Your task to perform on an android device: Install the eBay app Image 0: 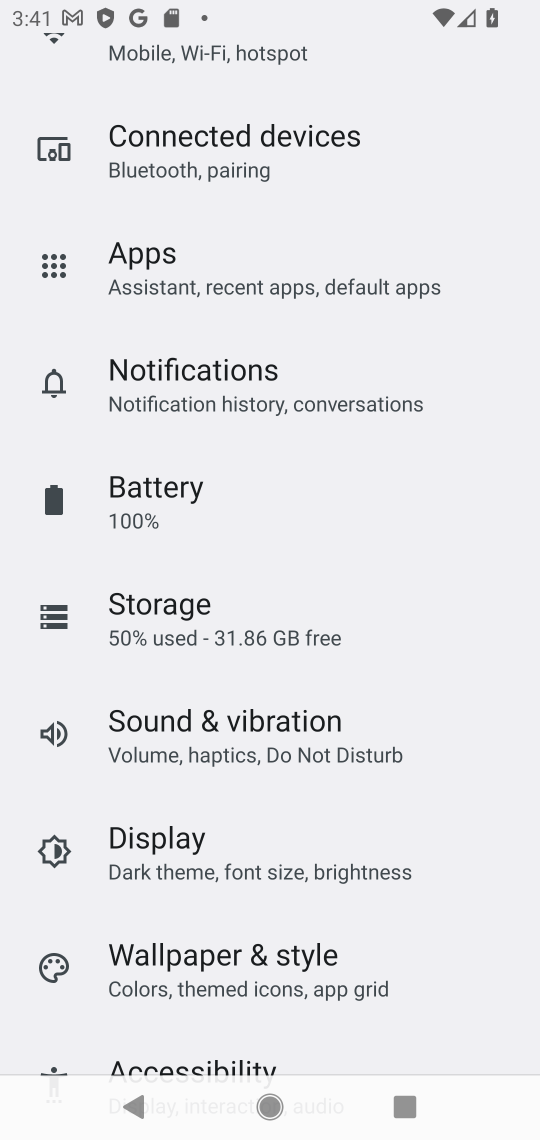
Step 0: press home button
Your task to perform on an android device: Install the eBay app Image 1: 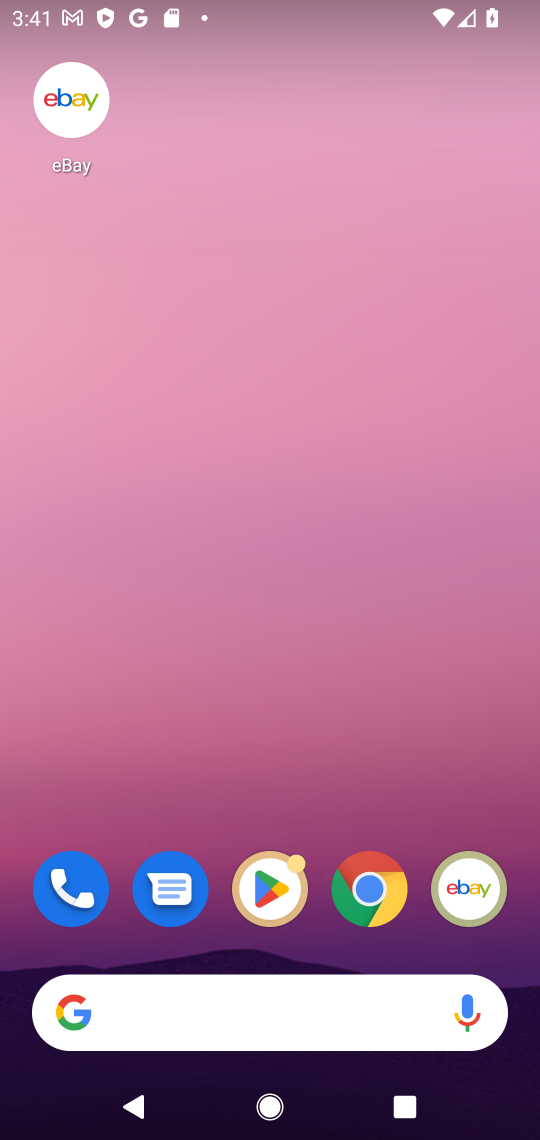
Step 1: drag from (237, 852) to (204, 262)
Your task to perform on an android device: Install the eBay app Image 2: 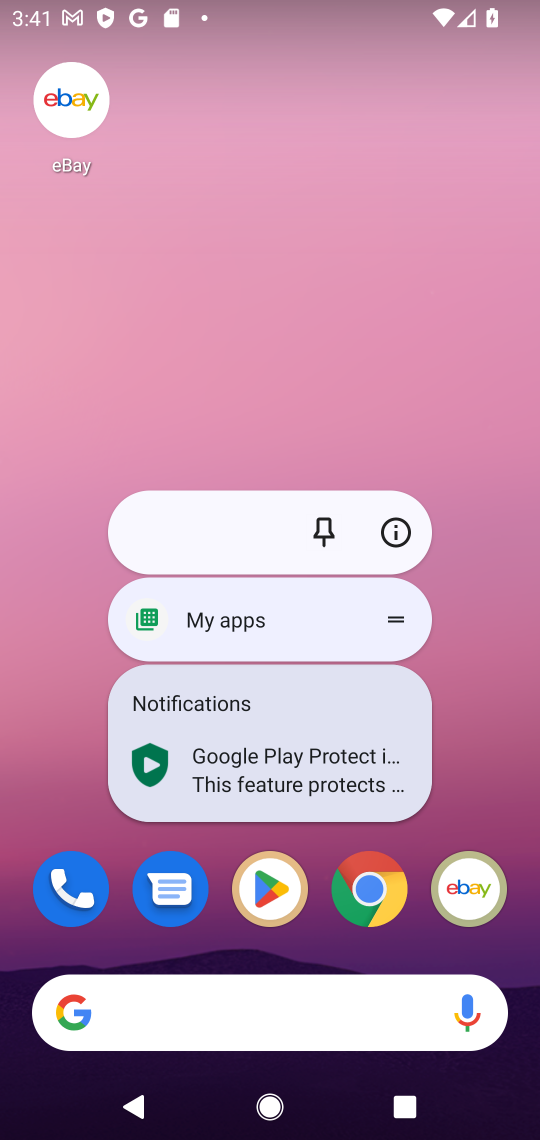
Step 2: click (315, 336)
Your task to perform on an android device: Install the eBay app Image 3: 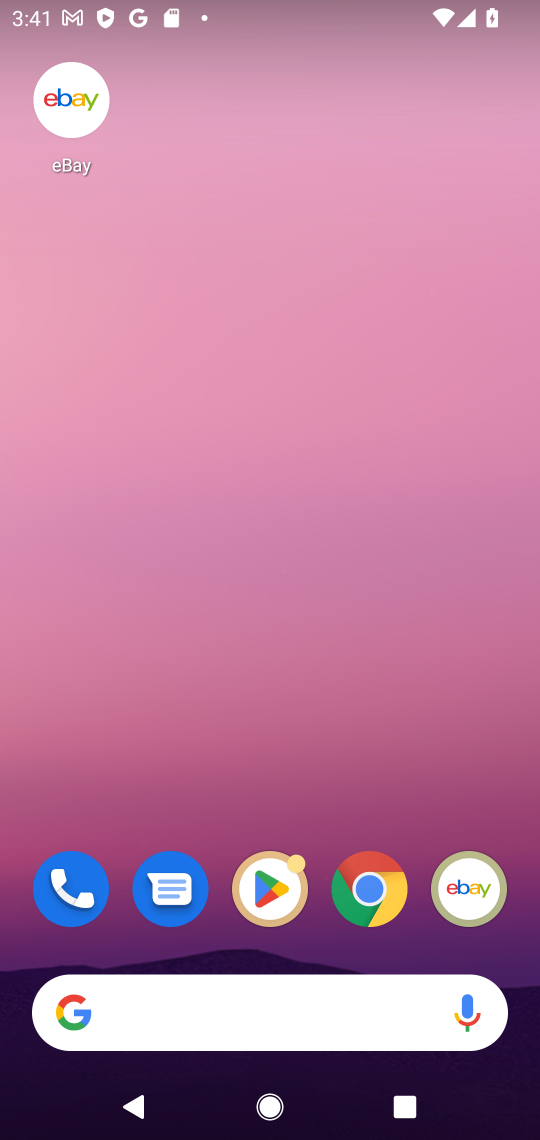
Step 3: drag from (203, 928) to (233, 310)
Your task to perform on an android device: Install the eBay app Image 4: 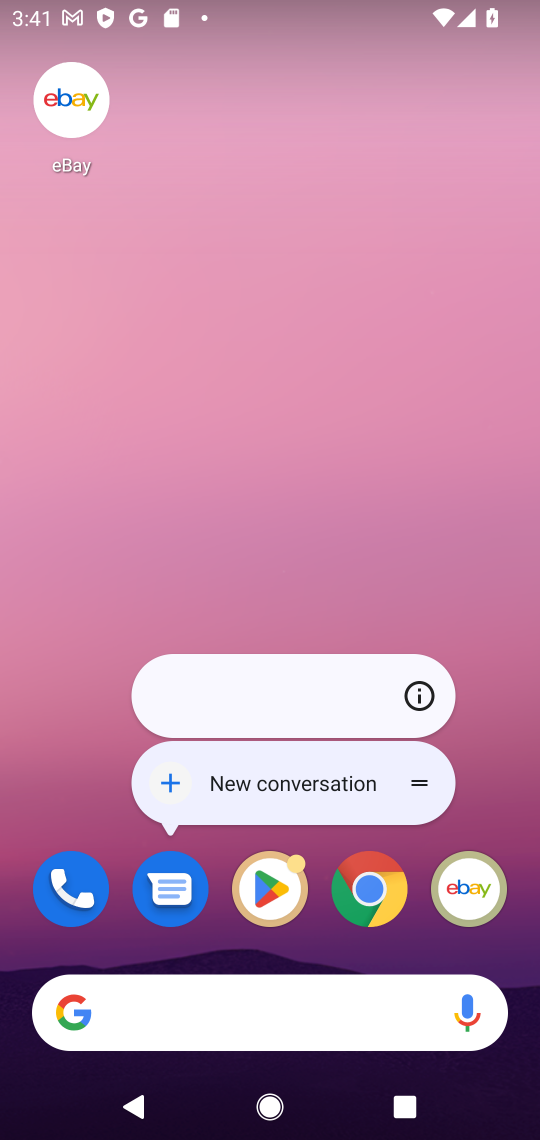
Step 4: click (329, 532)
Your task to perform on an android device: Install the eBay app Image 5: 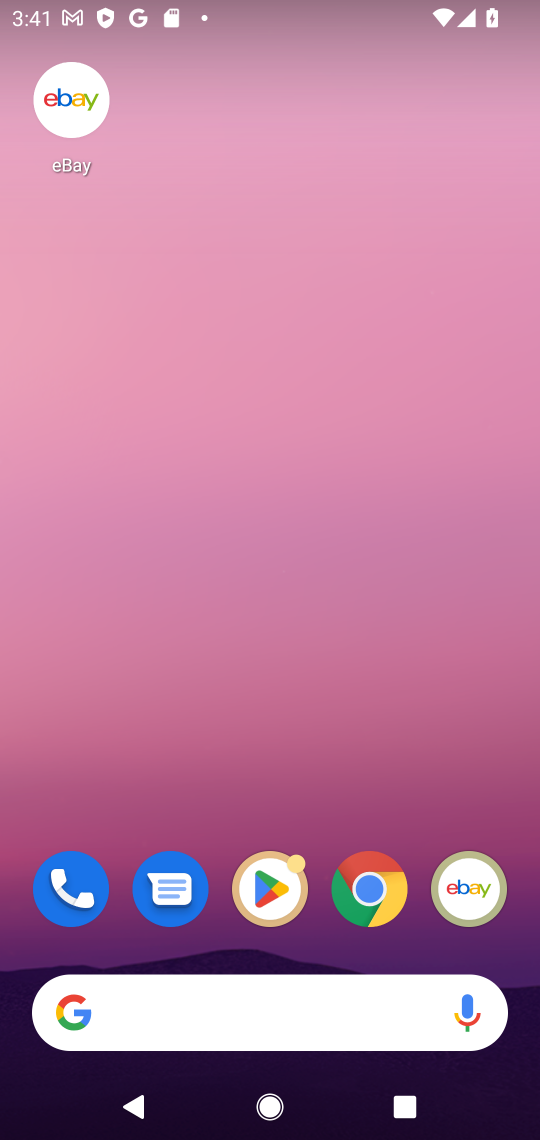
Step 5: drag from (272, 1002) to (247, 240)
Your task to perform on an android device: Install the eBay app Image 6: 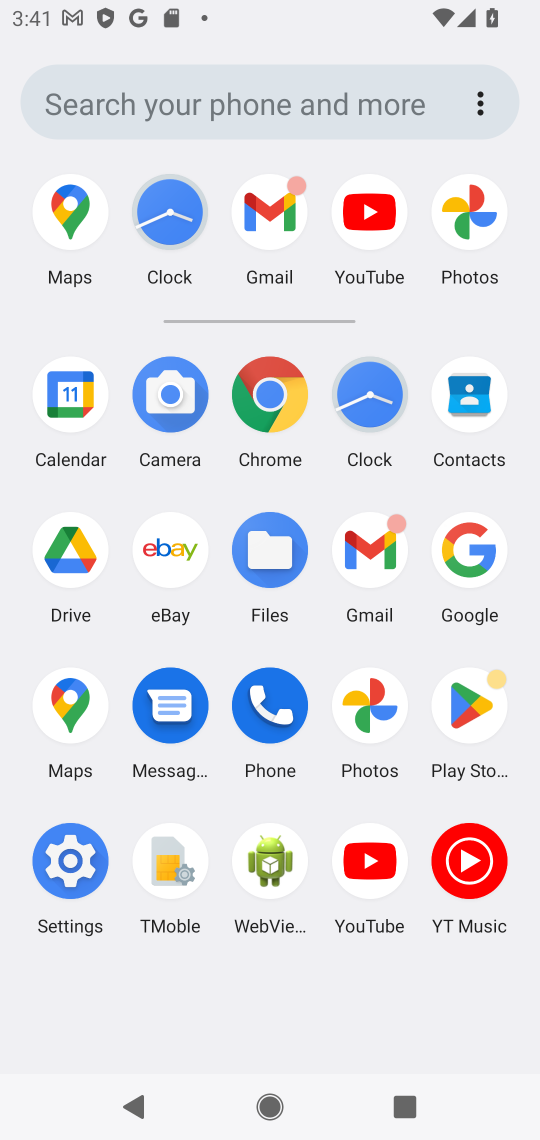
Step 6: click (456, 547)
Your task to perform on an android device: Install the eBay app Image 7: 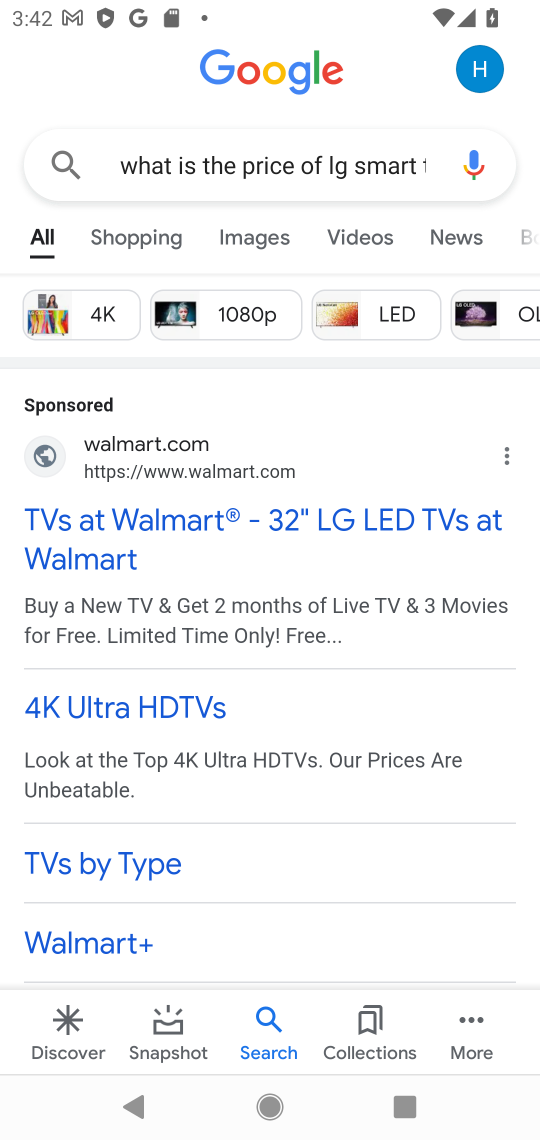
Step 7: click (307, 159)
Your task to perform on an android device: Install the eBay app Image 8: 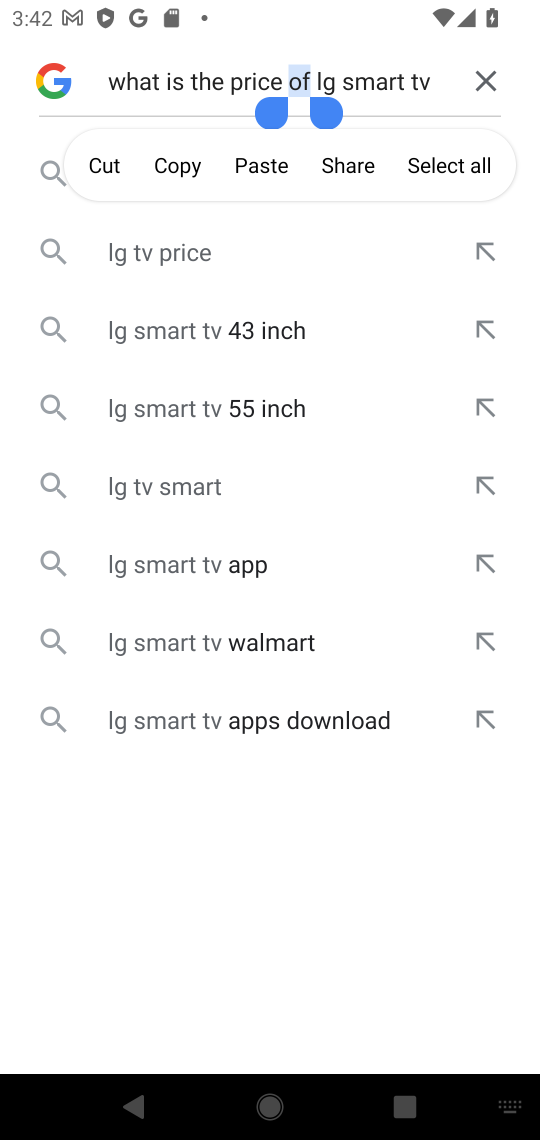
Step 8: click (473, 86)
Your task to perform on an android device: Install the eBay app Image 9: 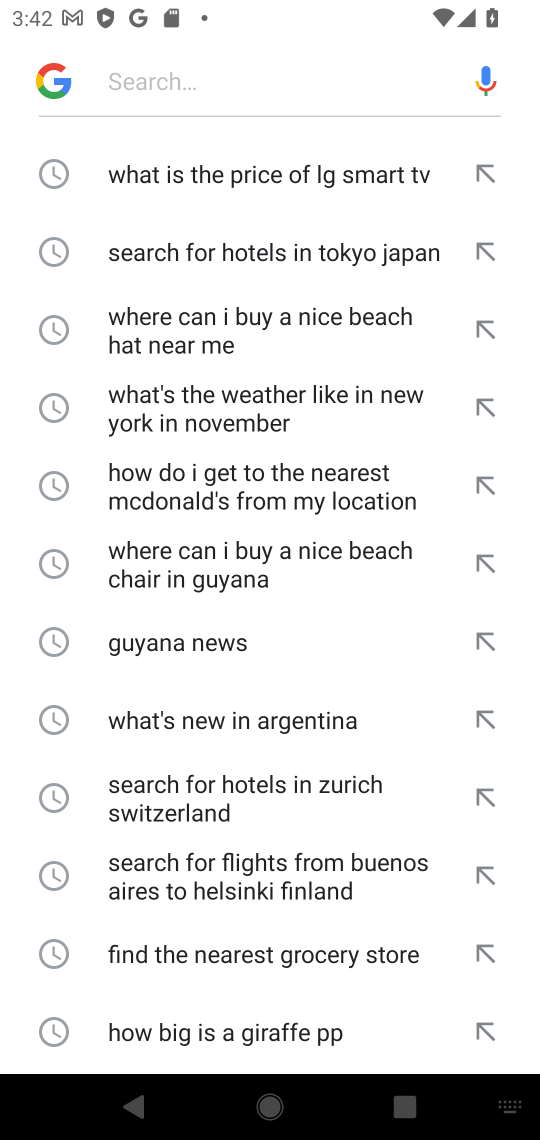
Step 9: press home button
Your task to perform on an android device: Install the eBay app Image 10: 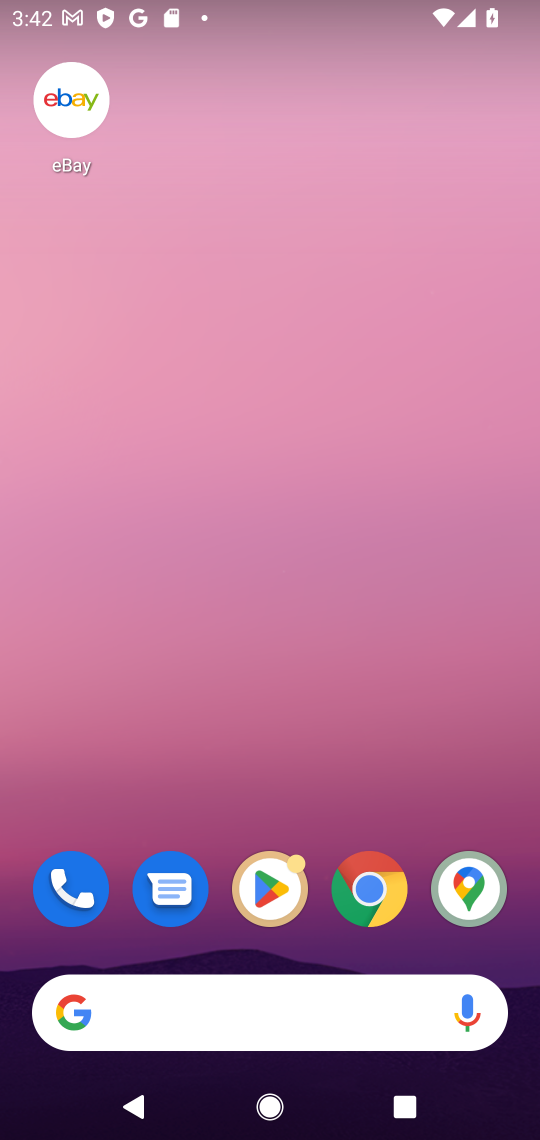
Step 10: drag from (256, 1000) to (256, 214)
Your task to perform on an android device: Install the eBay app Image 11: 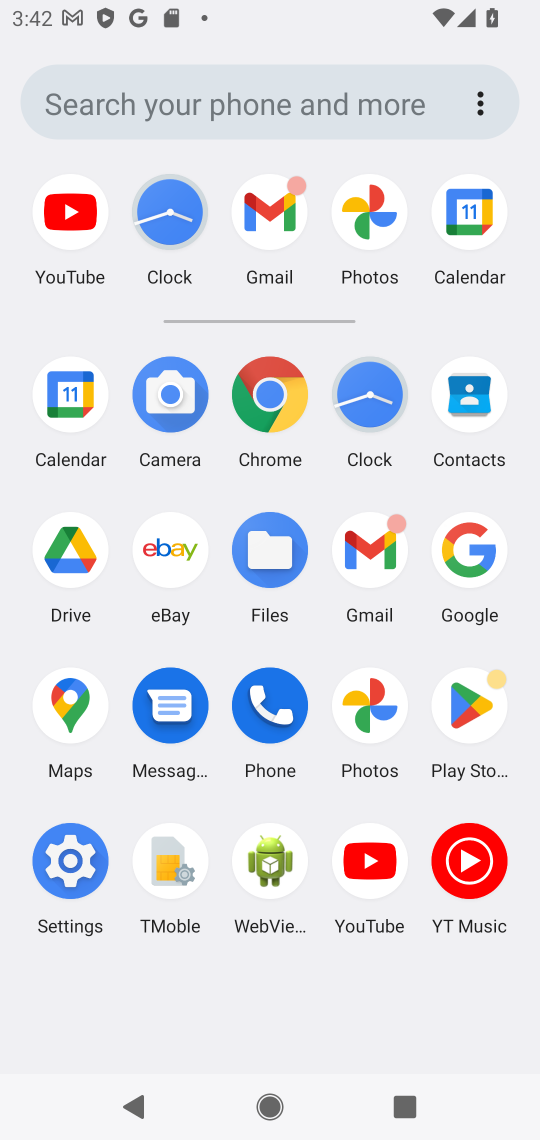
Step 11: click (453, 702)
Your task to perform on an android device: Install the eBay app Image 12: 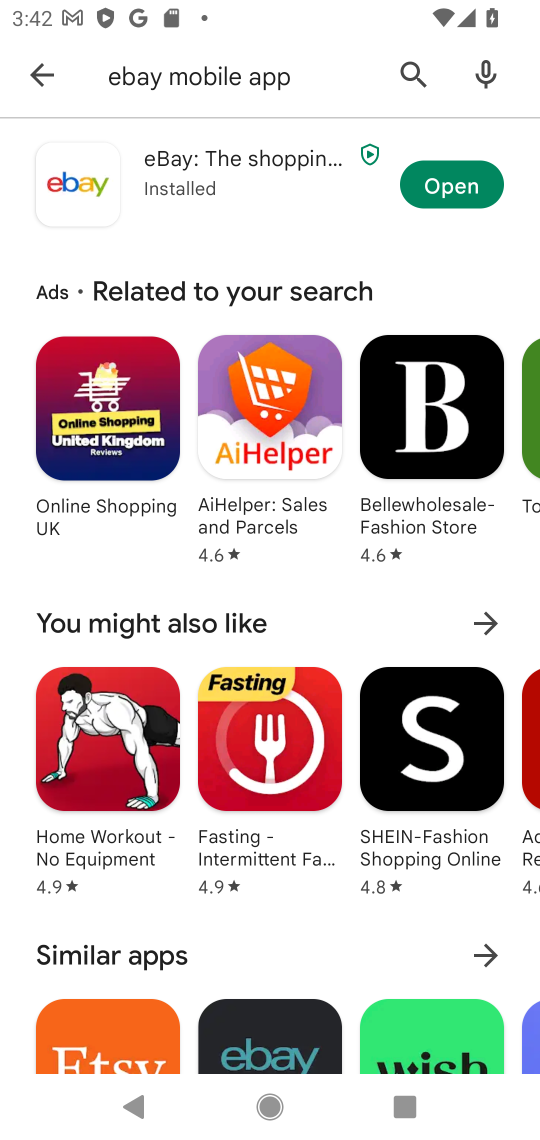
Step 12: click (453, 183)
Your task to perform on an android device: Install the eBay app Image 13: 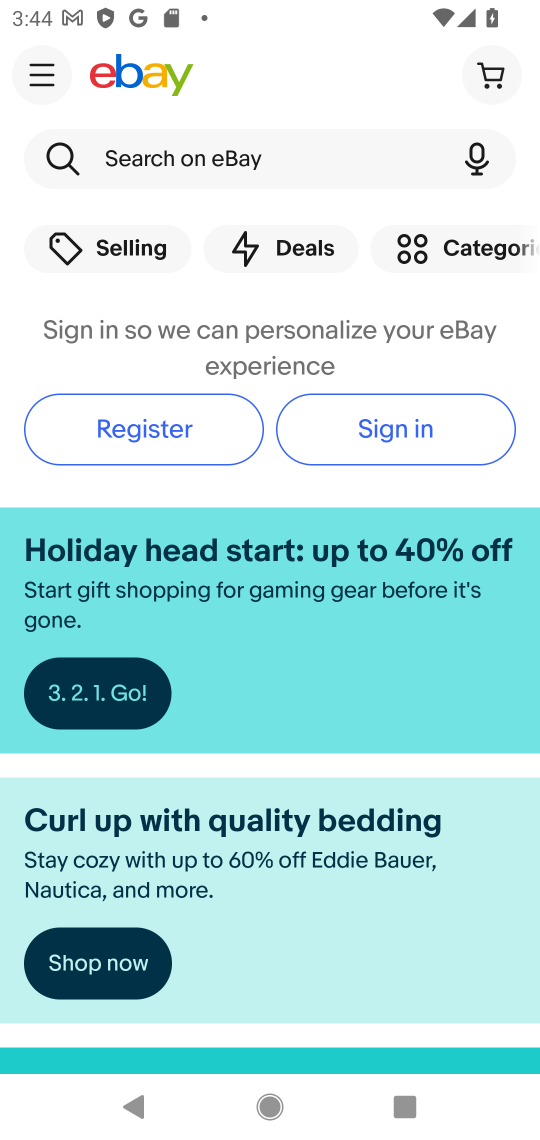
Step 13: task complete